Your task to perform on an android device: View the shopping cart on target. Search for apple airpods on target, select the first entry, and add it to the cart. Image 0: 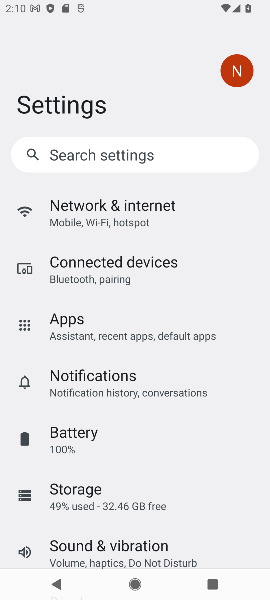
Step 0: press home button
Your task to perform on an android device: View the shopping cart on target. Search for apple airpods on target, select the first entry, and add it to the cart. Image 1: 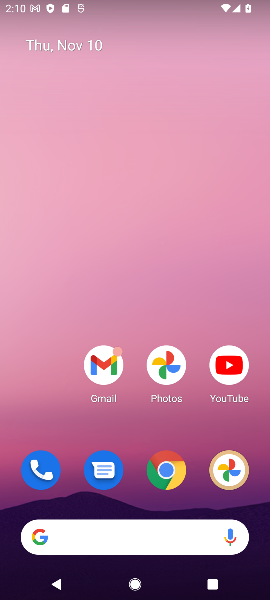
Step 1: click (166, 470)
Your task to perform on an android device: View the shopping cart on target. Search for apple airpods on target, select the first entry, and add it to the cart. Image 2: 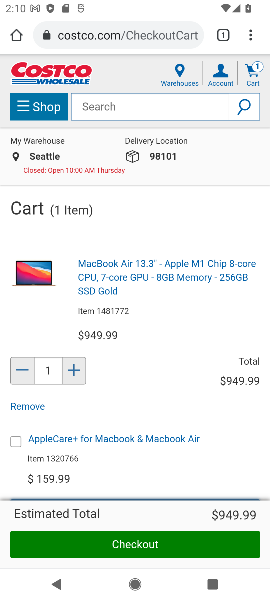
Step 2: click (127, 39)
Your task to perform on an android device: View the shopping cart on target. Search for apple airpods on target, select the first entry, and add it to the cart. Image 3: 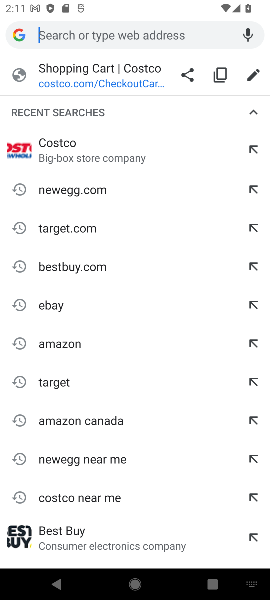
Step 3: type "target"
Your task to perform on an android device: View the shopping cart on target. Search for apple airpods on target, select the first entry, and add it to the cart. Image 4: 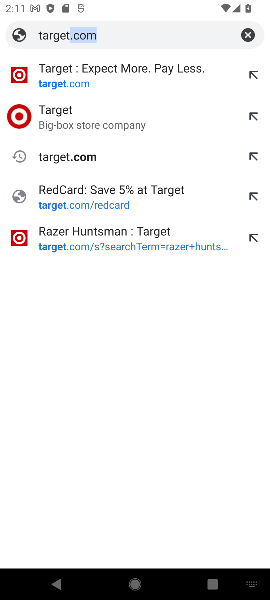
Step 4: click (61, 116)
Your task to perform on an android device: View the shopping cart on target. Search for apple airpods on target, select the first entry, and add it to the cart. Image 5: 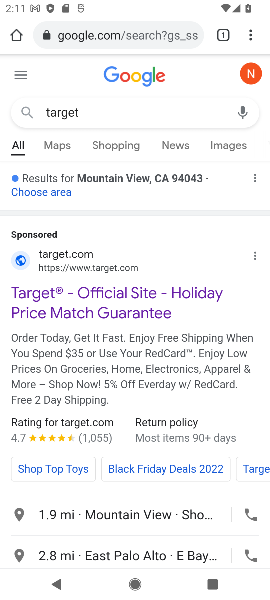
Step 5: drag from (174, 394) to (182, 219)
Your task to perform on an android device: View the shopping cart on target. Search for apple airpods on target, select the first entry, and add it to the cart. Image 6: 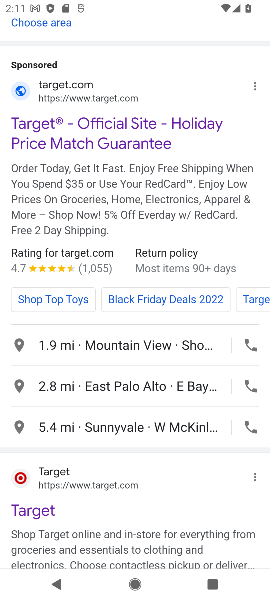
Step 6: click (89, 511)
Your task to perform on an android device: View the shopping cart on target. Search for apple airpods on target, select the first entry, and add it to the cart. Image 7: 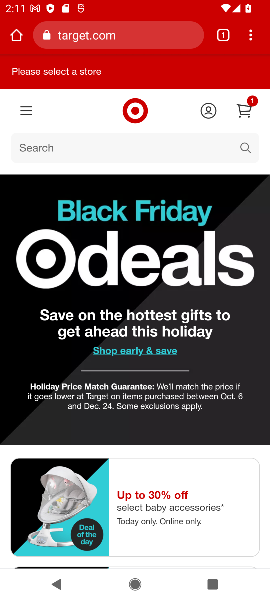
Step 7: click (244, 111)
Your task to perform on an android device: View the shopping cart on target. Search for apple airpods on target, select the first entry, and add it to the cart. Image 8: 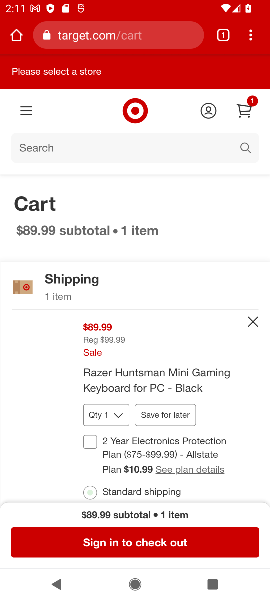
Step 8: click (150, 158)
Your task to perform on an android device: View the shopping cart on target. Search for apple airpods on target, select the first entry, and add it to the cart. Image 9: 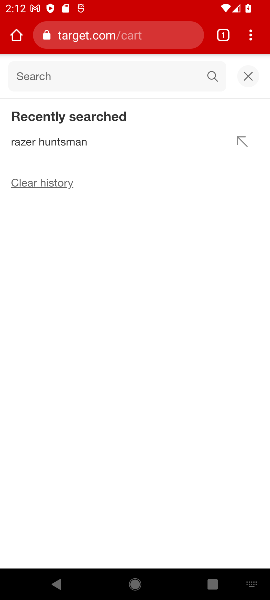
Step 9: type "apple airpods"
Your task to perform on an android device: View the shopping cart on target. Search for apple airpods on target, select the first entry, and add it to the cart. Image 10: 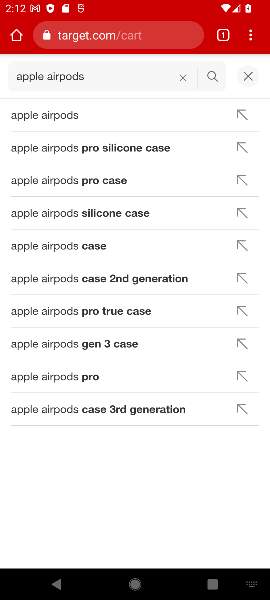
Step 10: click (65, 114)
Your task to perform on an android device: View the shopping cart on target. Search for apple airpods on target, select the first entry, and add it to the cart. Image 11: 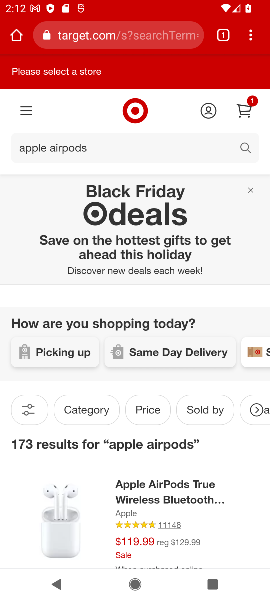
Step 11: click (188, 491)
Your task to perform on an android device: View the shopping cart on target. Search for apple airpods on target, select the first entry, and add it to the cart. Image 12: 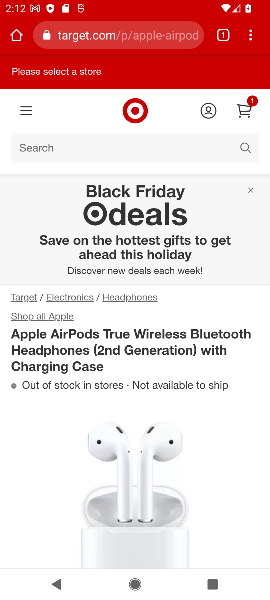
Step 12: drag from (207, 480) to (225, 247)
Your task to perform on an android device: View the shopping cart on target. Search for apple airpods on target, select the first entry, and add it to the cart. Image 13: 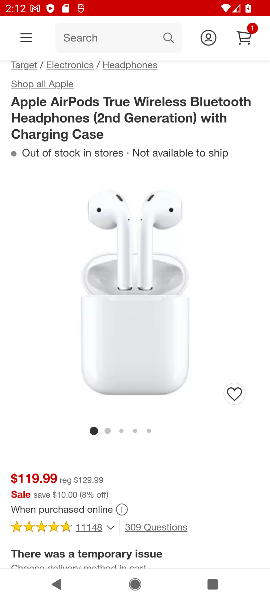
Step 13: drag from (182, 455) to (200, 186)
Your task to perform on an android device: View the shopping cart on target. Search for apple airpods on target, select the first entry, and add it to the cart. Image 14: 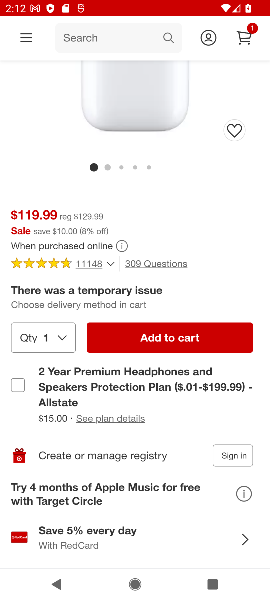
Step 14: click (164, 342)
Your task to perform on an android device: View the shopping cart on target. Search for apple airpods on target, select the first entry, and add it to the cart. Image 15: 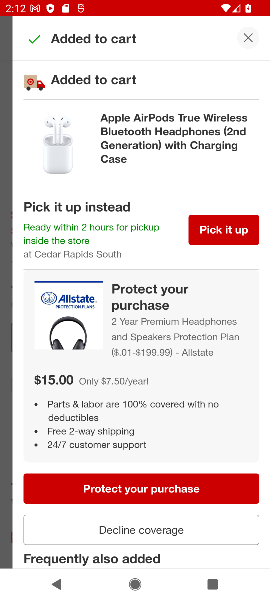
Step 15: click (163, 524)
Your task to perform on an android device: View the shopping cart on target. Search for apple airpods on target, select the first entry, and add it to the cart. Image 16: 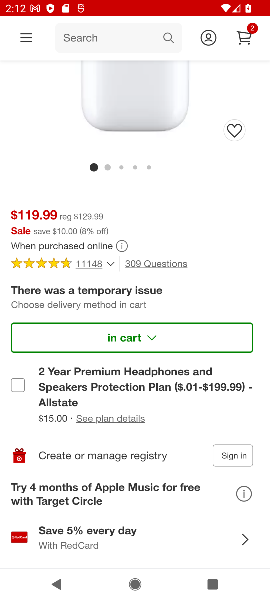
Step 16: task complete